Your task to perform on an android device: Open calendar and show me the second week of next month Image 0: 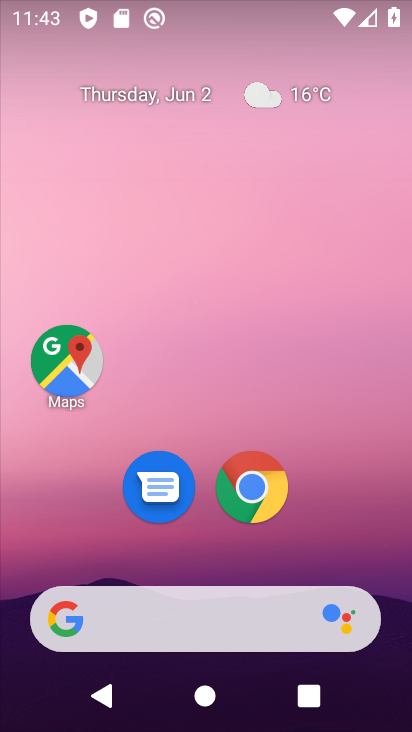
Step 0: drag from (195, 443) to (240, 16)
Your task to perform on an android device: Open calendar and show me the second week of next month Image 1: 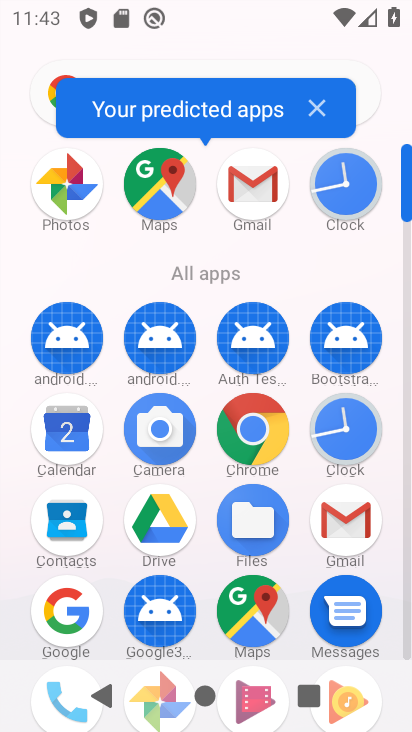
Step 1: click (74, 432)
Your task to perform on an android device: Open calendar and show me the second week of next month Image 2: 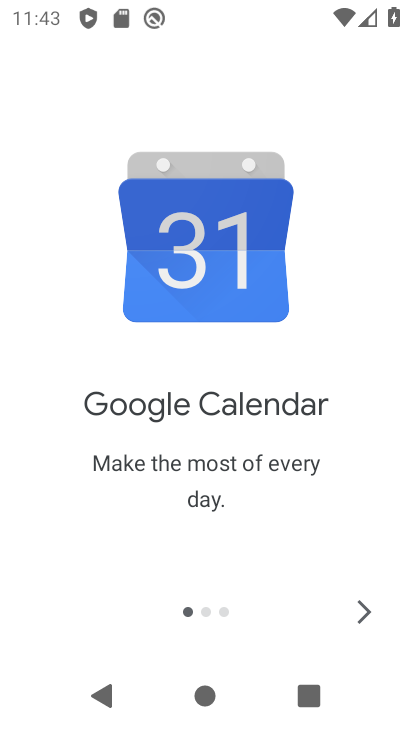
Step 2: click (365, 610)
Your task to perform on an android device: Open calendar and show me the second week of next month Image 3: 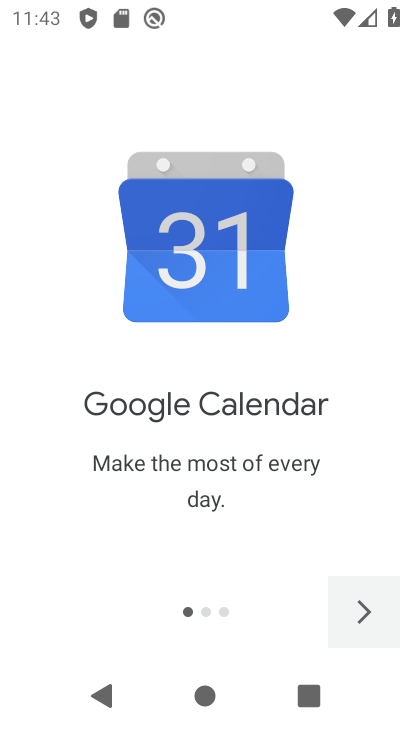
Step 3: click (361, 609)
Your task to perform on an android device: Open calendar and show me the second week of next month Image 4: 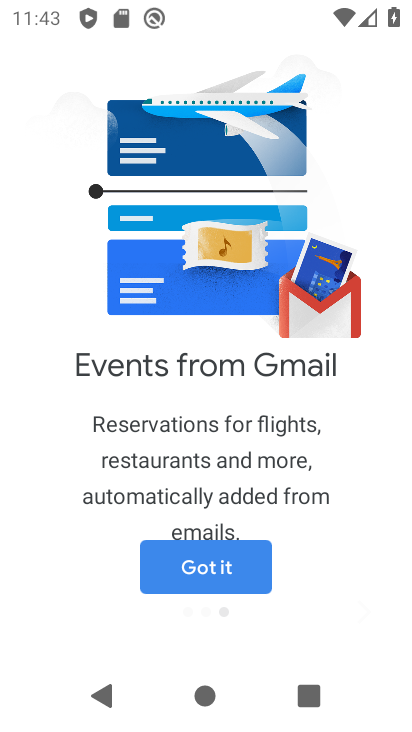
Step 4: click (361, 609)
Your task to perform on an android device: Open calendar and show me the second week of next month Image 5: 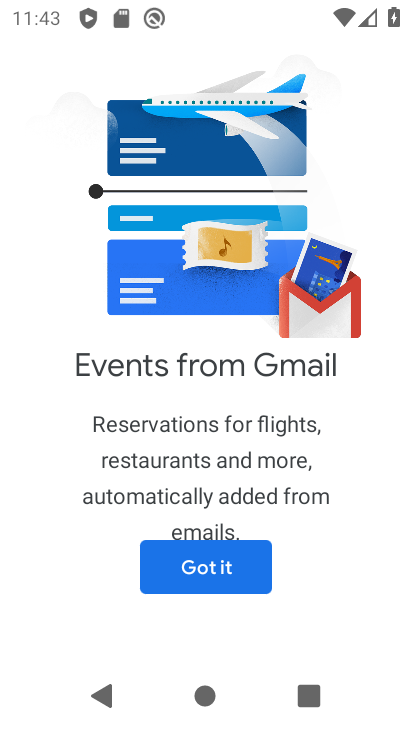
Step 5: click (195, 583)
Your task to perform on an android device: Open calendar and show me the second week of next month Image 6: 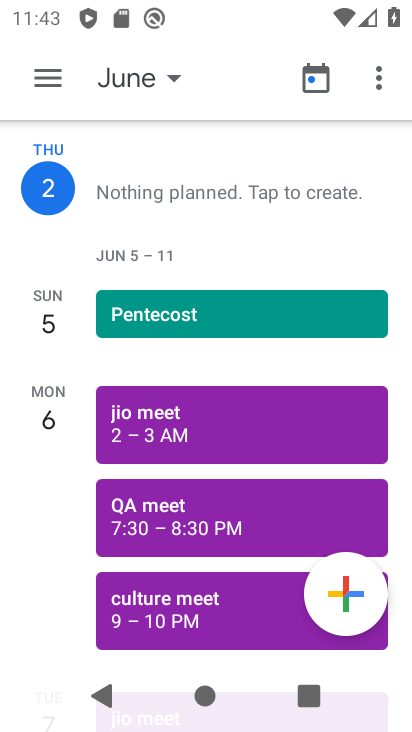
Step 6: click (137, 80)
Your task to perform on an android device: Open calendar and show me the second week of next month Image 7: 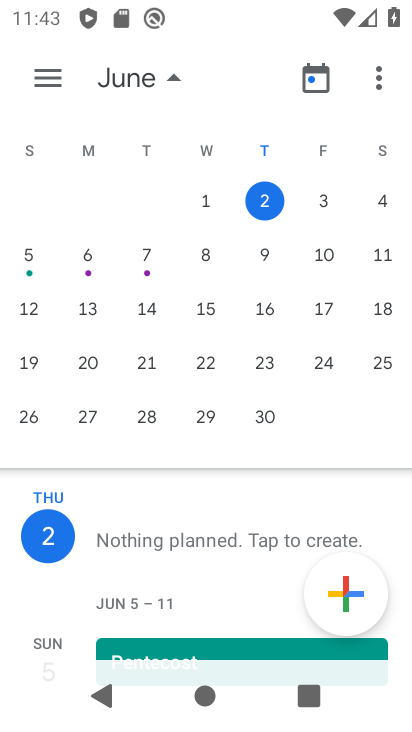
Step 7: drag from (374, 316) to (0, 276)
Your task to perform on an android device: Open calendar and show me the second week of next month Image 8: 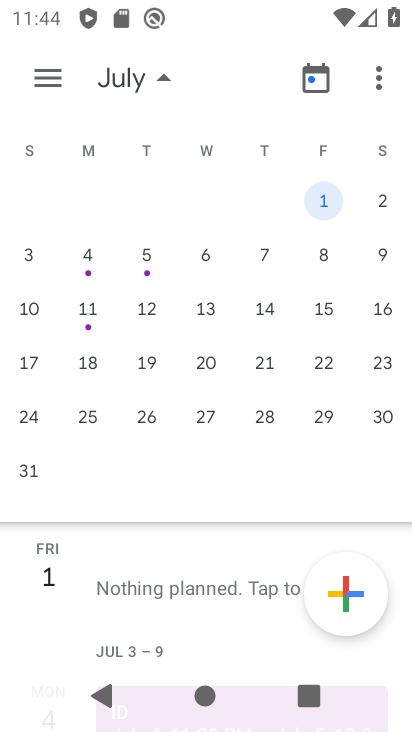
Step 8: click (96, 313)
Your task to perform on an android device: Open calendar and show me the second week of next month Image 9: 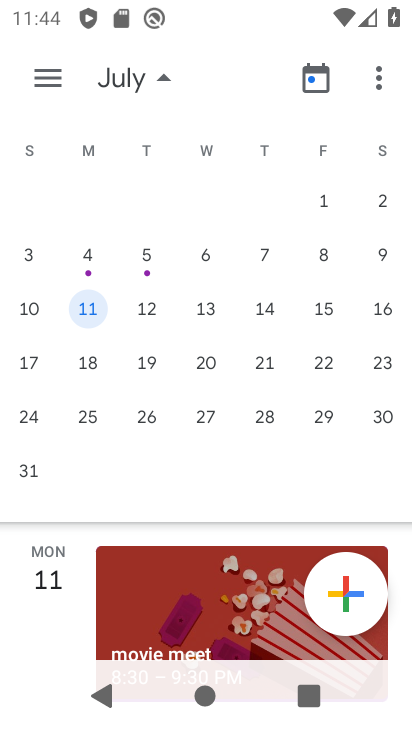
Step 9: task complete